Your task to perform on an android device: turn smart compose on in the gmail app Image 0: 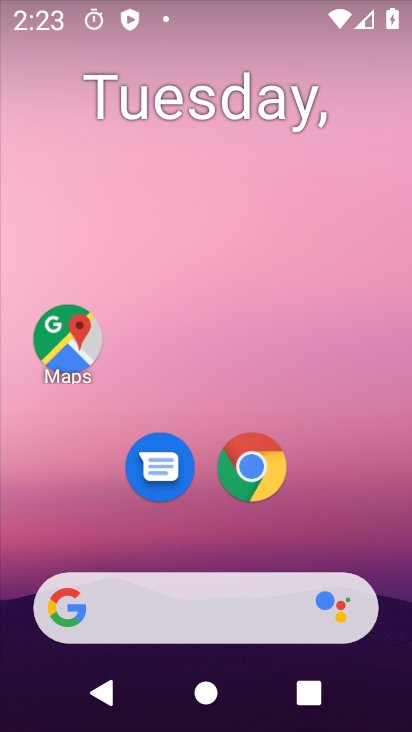
Step 0: drag from (371, 550) to (375, 126)
Your task to perform on an android device: turn smart compose on in the gmail app Image 1: 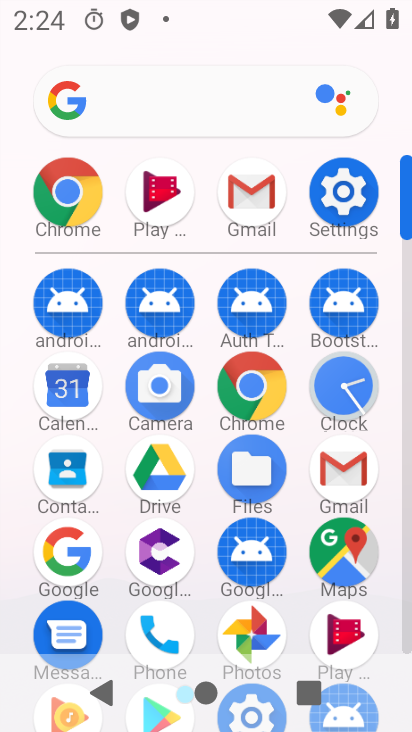
Step 1: click (361, 476)
Your task to perform on an android device: turn smart compose on in the gmail app Image 2: 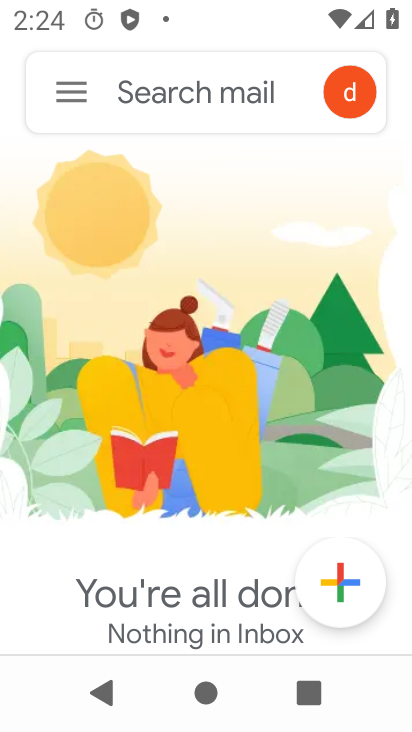
Step 2: click (53, 92)
Your task to perform on an android device: turn smart compose on in the gmail app Image 3: 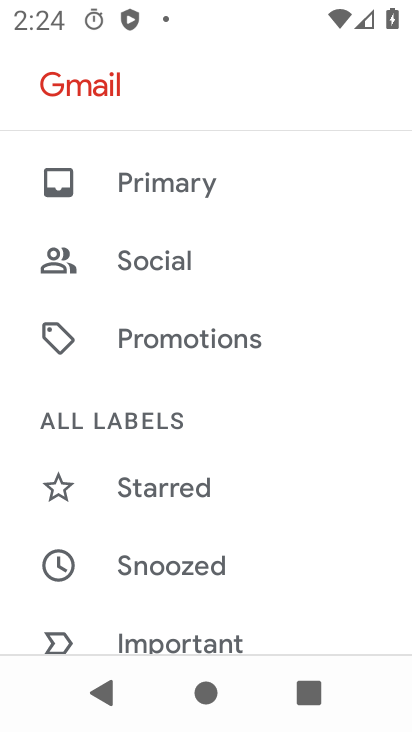
Step 3: drag from (319, 482) to (332, 363)
Your task to perform on an android device: turn smart compose on in the gmail app Image 4: 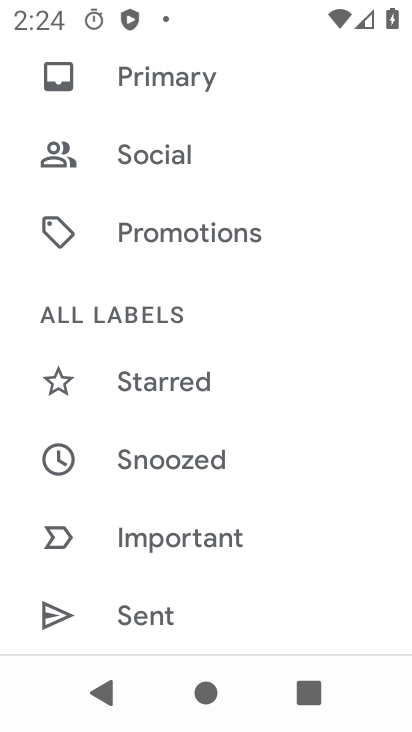
Step 4: drag from (328, 502) to (322, 388)
Your task to perform on an android device: turn smart compose on in the gmail app Image 5: 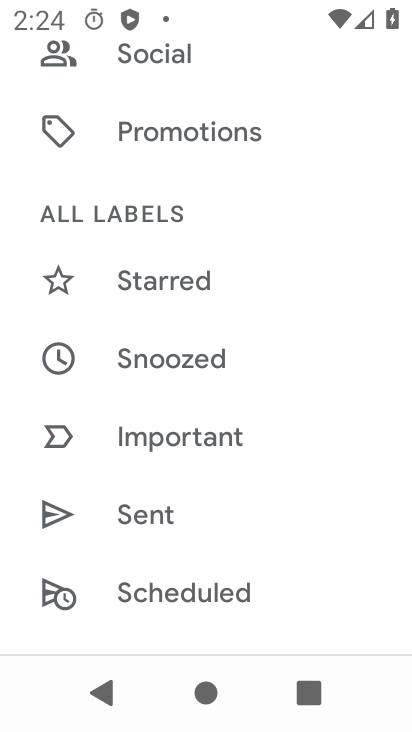
Step 5: drag from (333, 523) to (336, 413)
Your task to perform on an android device: turn smart compose on in the gmail app Image 6: 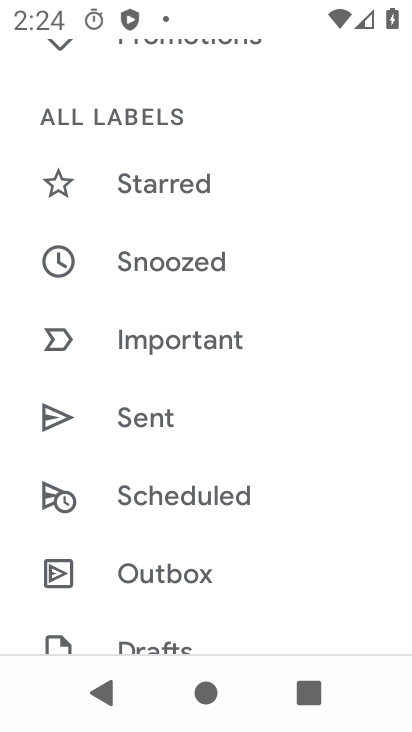
Step 6: drag from (327, 501) to (330, 420)
Your task to perform on an android device: turn smart compose on in the gmail app Image 7: 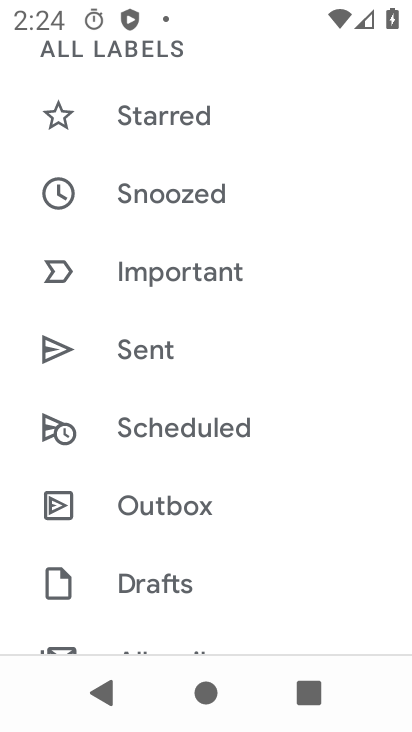
Step 7: drag from (324, 499) to (319, 411)
Your task to perform on an android device: turn smart compose on in the gmail app Image 8: 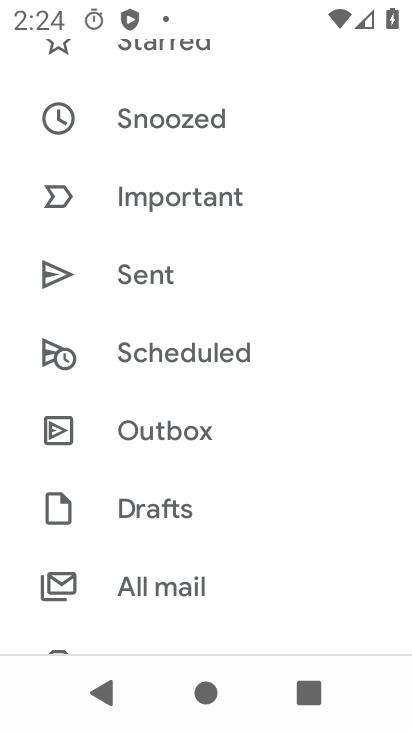
Step 8: drag from (336, 508) to (343, 414)
Your task to perform on an android device: turn smart compose on in the gmail app Image 9: 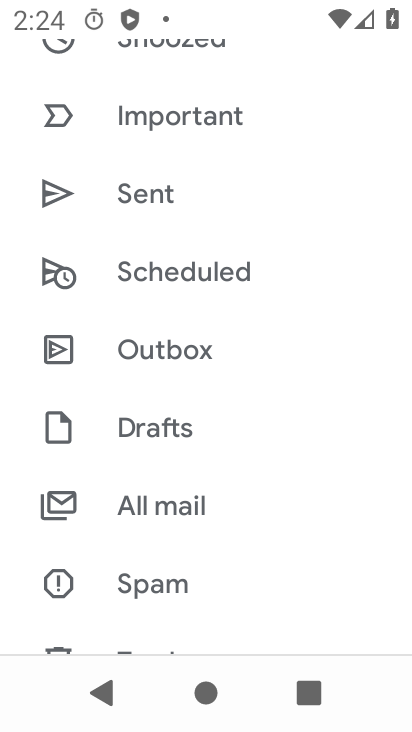
Step 9: drag from (341, 535) to (340, 435)
Your task to perform on an android device: turn smart compose on in the gmail app Image 10: 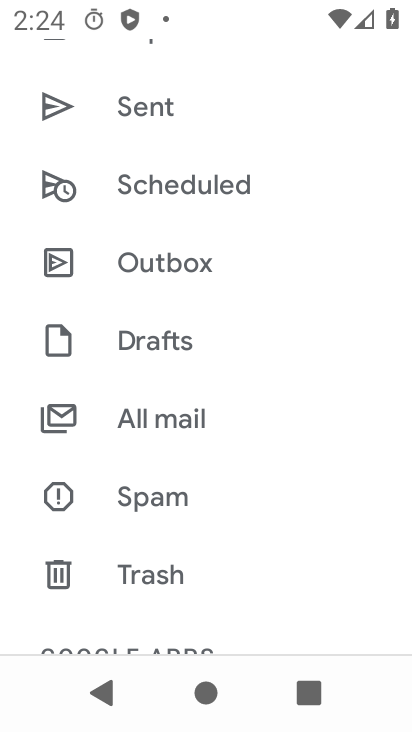
Step 10: drag from (341, 505) to (352, 350)
Your task to perform on an android device: turn smart compose on in the gmail app Image 11: 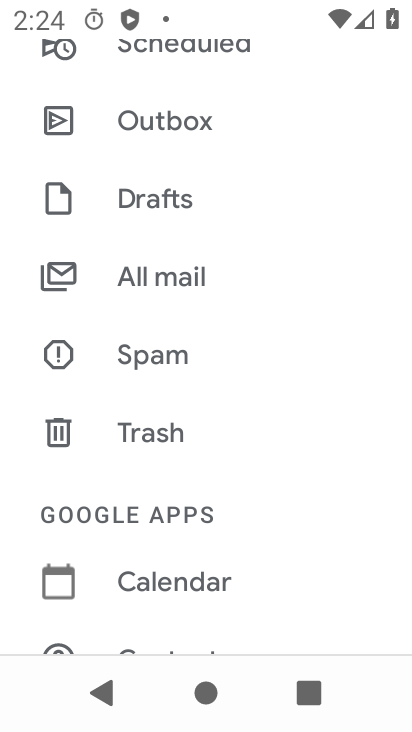
Step 11: drag from (355, 500) to (349, 363)
Your task to perform on an android device: turn smart compose on in the gmail app Image 12: 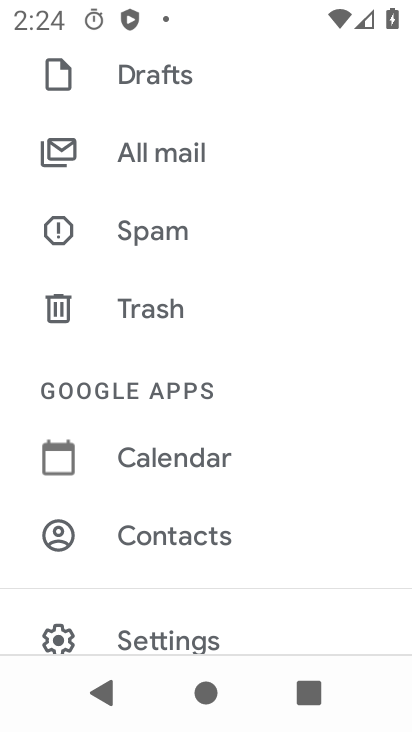
Step 12: drag from (346, 513) to (339, 367)
Your task to perform on an android device: turn smart compose on in the gmail app Image 13: 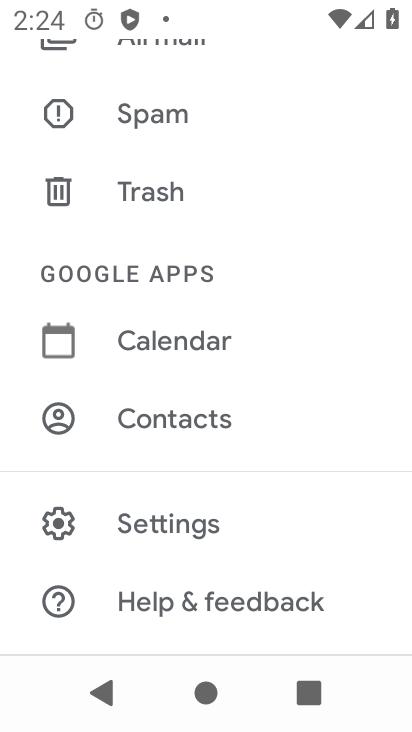
Step 13: click (231, 531)
Your task to perform on an android device: turn smart compose on in the gmail app Image 14: 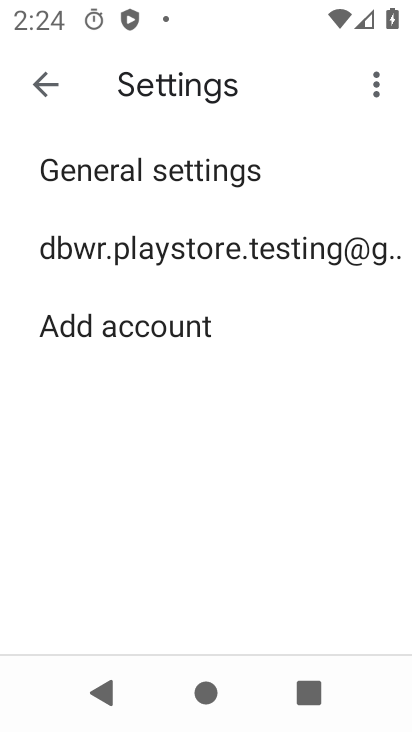
Step 14: click (259, 254)
Your task to perform on an android device: turn smart compose on in the gmail app Image 15: 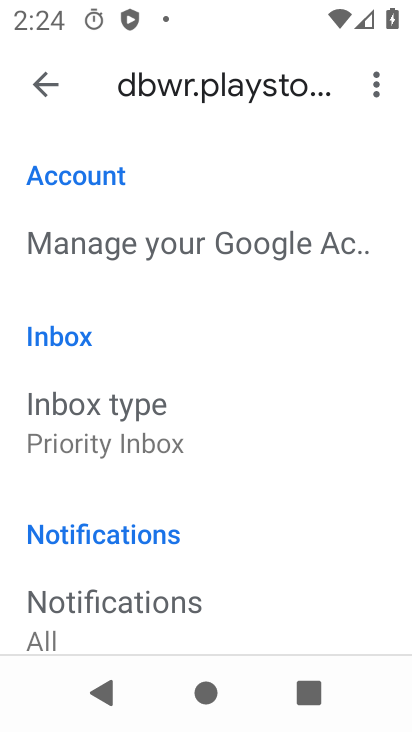
Step 15: task complete